Your task to perform on an android device: turn on priority inbox in the gmail app Image 0: 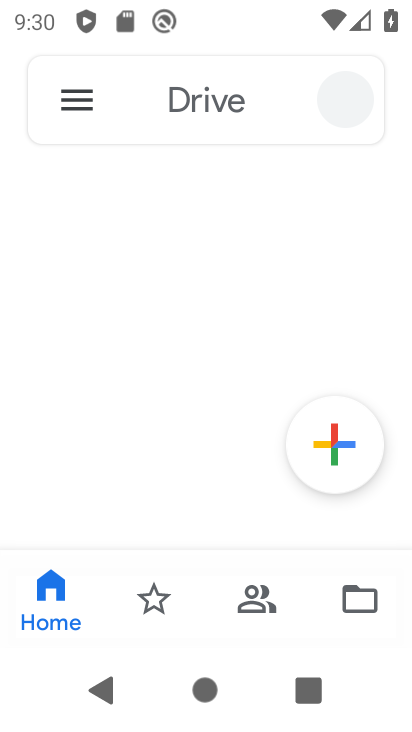
Step 0: drag from (93, 526) to (208, 3)
Your task to perform on an android device: turn on priority inbox in the gmail app Image 1: 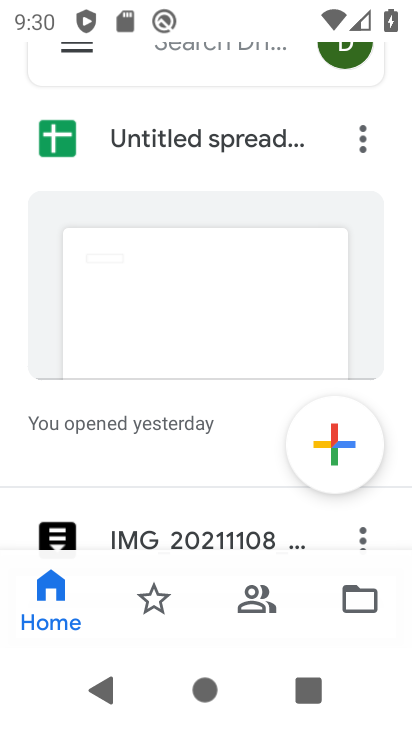
Step 1: press home button
Your task to perform on an android device: turn on priority inbox in the gmail app Image 2: 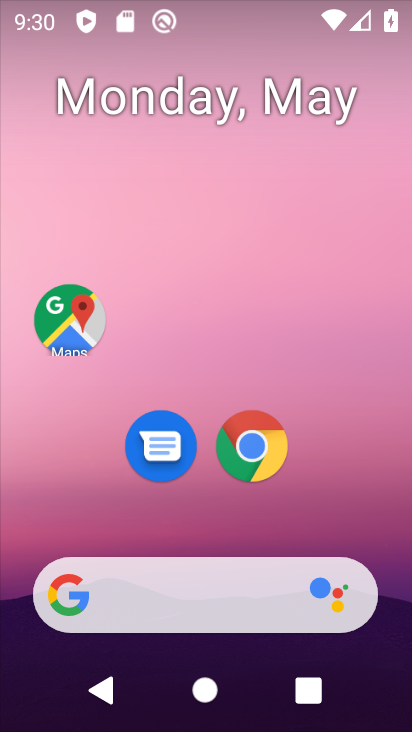
Step 2: drag from (95, 551) to (198, 57)
Your task to perform on an android device: turn on priority inbox in the gmail app Image 3: 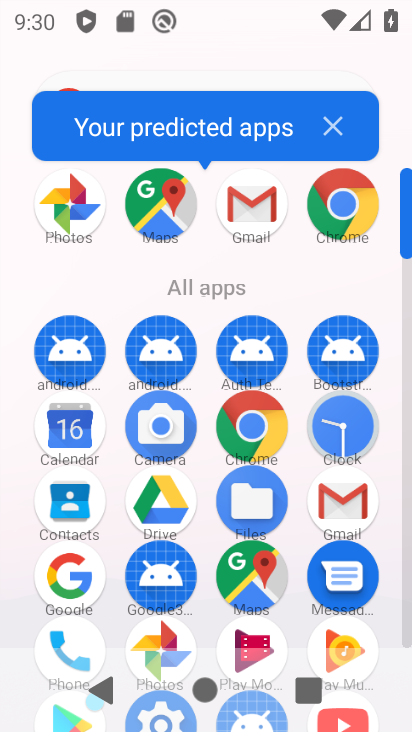
Step 3: drag from (163, 541) to (225, 291)
Your task to perform on an android device: turn on priority inbox in the gmail app Image 4: 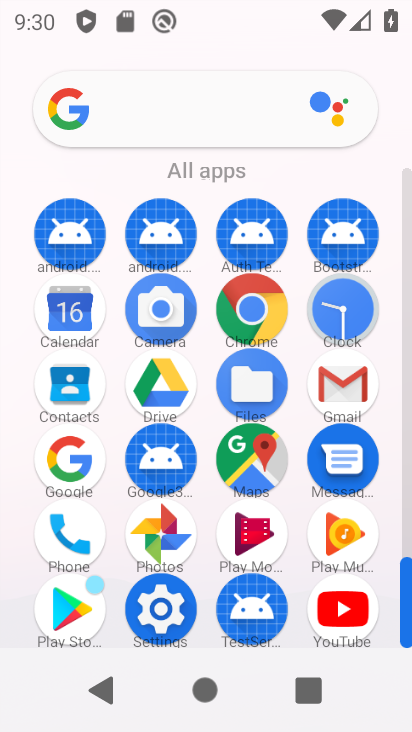
Step 4: click (321, 394)
Your task to perform on an android device: turn on priority inbox in the gmail app Image 5: 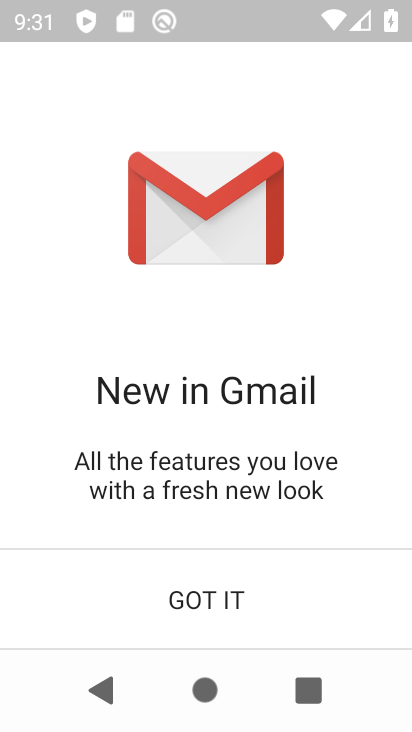
Step 5: click (217, 589)
Your task to perform on an android device: turn on priority inbox in the gmail app Image 6: 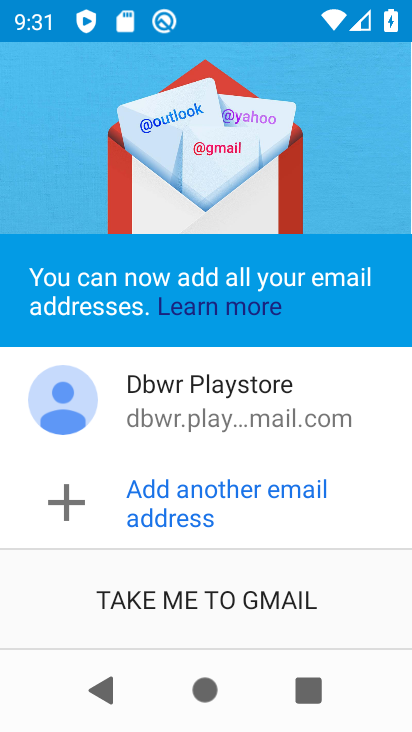
Step 6: click (219, 589)
Your task to perform on an android device: turn on priority inbox in the gmail app Image 7: 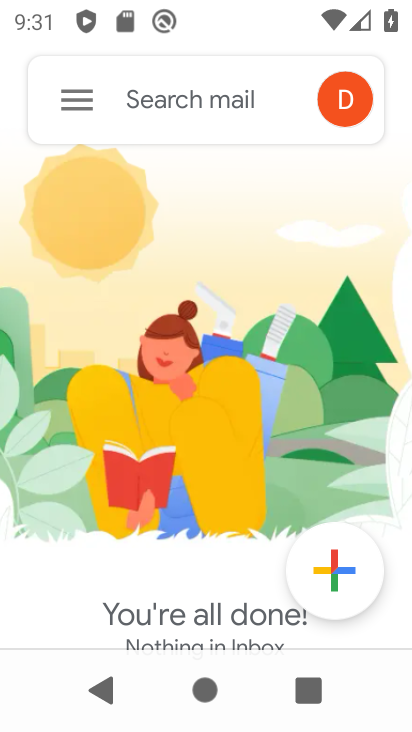
Step 7: click (87, 85)
Your task to perform on an android device: turn on priority inbox in the gmail app Image 8: 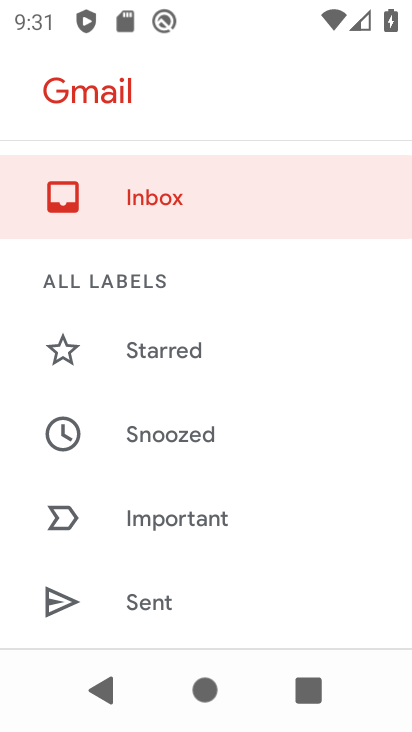
Step 8: drag from (164, 551) to (304, 154)
Your task to perform on an android device: turn on priority inbox in the gmail app Image 9: 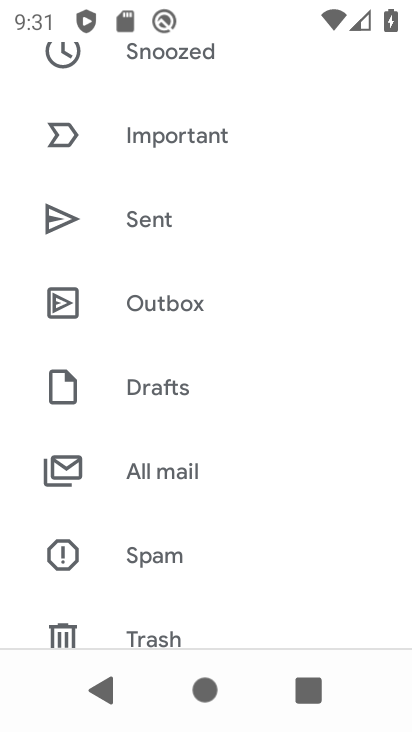
Step 9: drag from (231, 609) to (314, 175)
Your task to perform on an android device: turn on priority inbox in the gmail app Image 10: 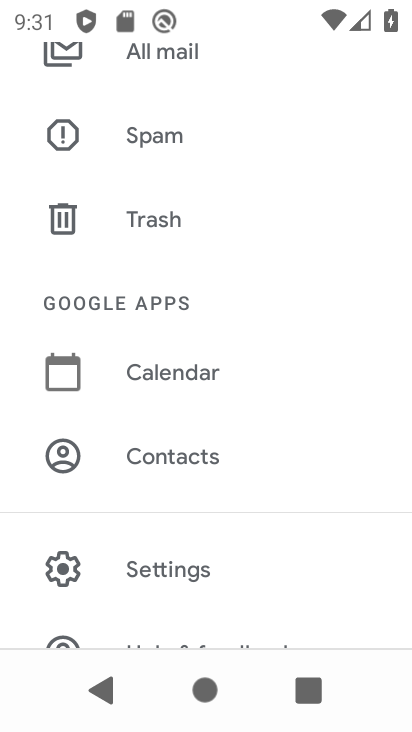
Step 10: drag from (201, 626) to (315, 190)
Your task to perform on an android device: turn on priority inbox in the gmail app Image 11: 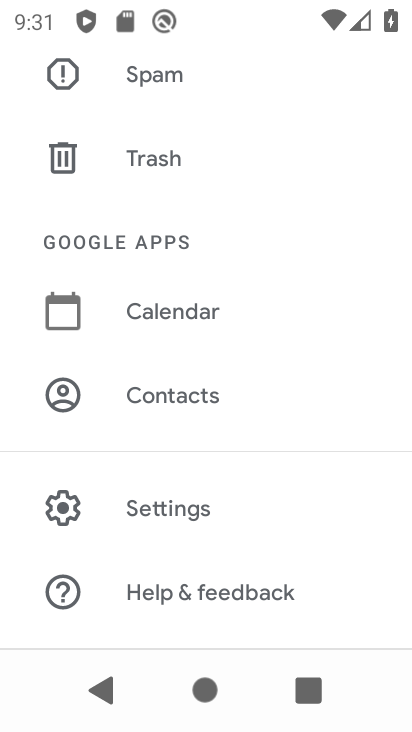
Step 11: click (193, 519)
Your task to perform on an android device: turn on priority inbox in the gmail app Image 12: 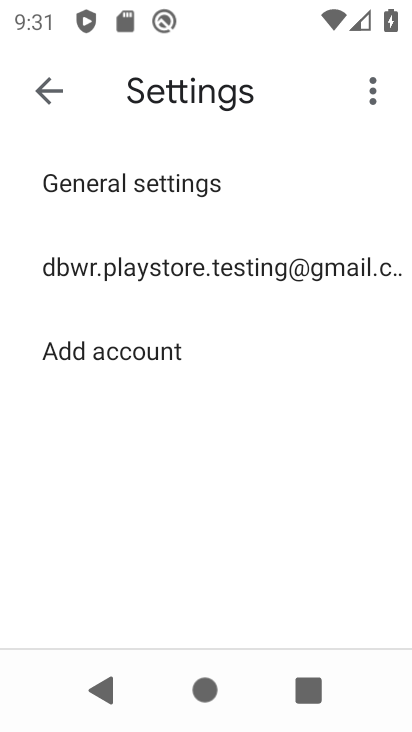
Step 12: click (254, 271)
Your task to perform on an android device: turn on priority inbox in the gmail app Image 13: 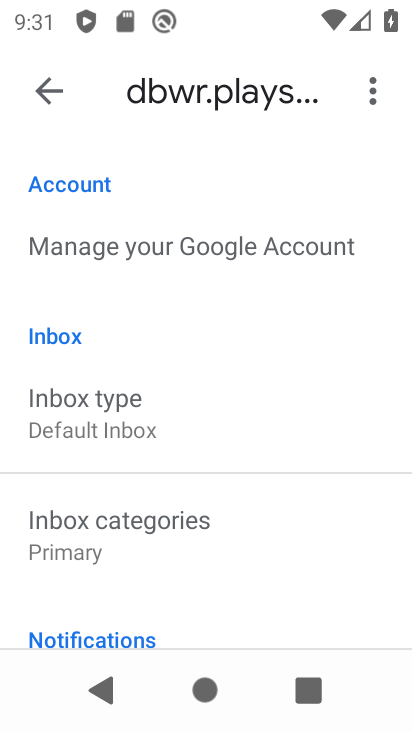
Step 13: click (240, 431)
Your task to perform on an android device: turn on priority inbox in the gmail app Image 14: 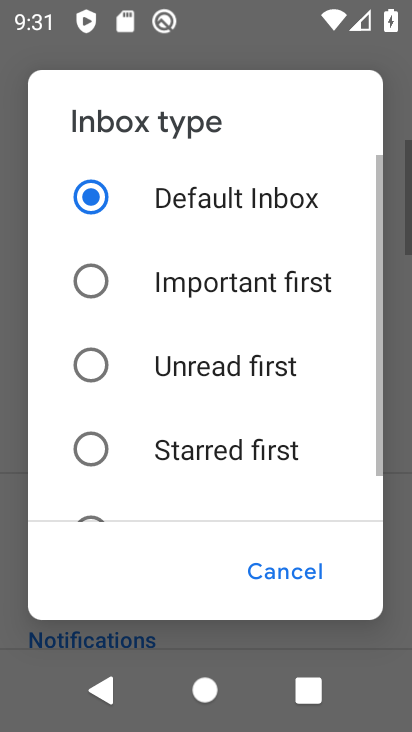
Step 14: drag from (264, 530) to (357, 80)
Your task to perform on an android device: turn on priority inbox in the gmail app Image 15: 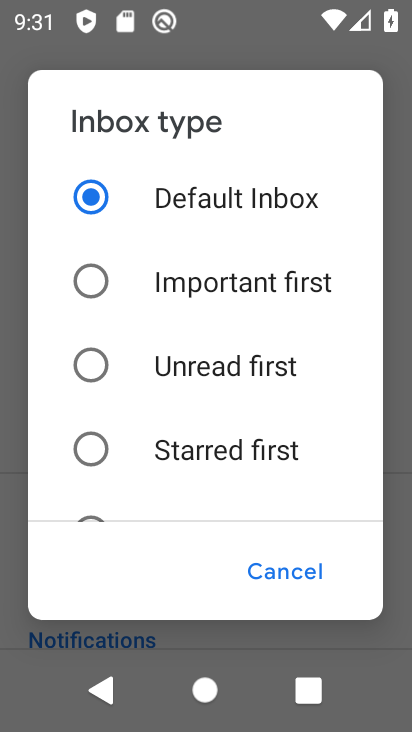
Step 15: drag from (191, 495) to (310, 13)
Your task to perform on an android device: turn on priority inbox in the gmail app Image 16: 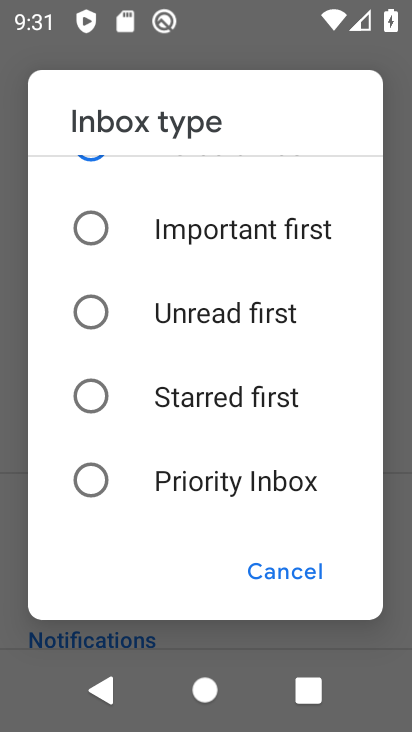
Step 16: click (190, 488)
Your task to perform on an android device: turn on priority inbox in the gmail app Image 17: 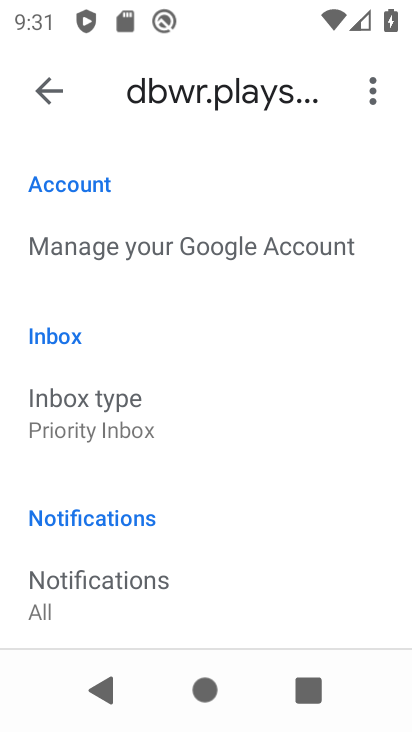
Step 17: task complete